Your task to perform on an android device: visit the assistant section in the google photos Image 0: 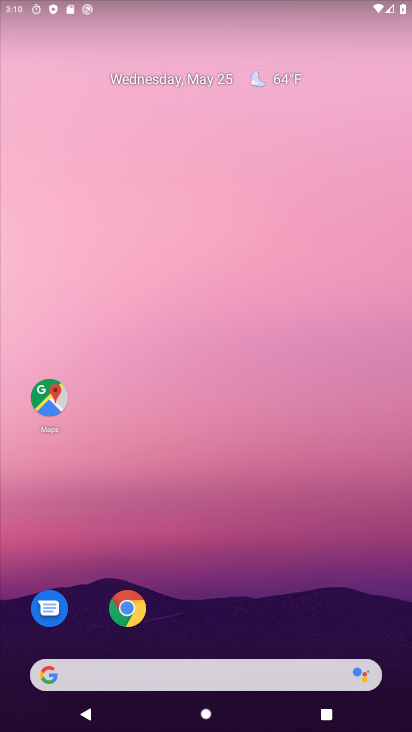
Step 0: drag from (249, 571) to (260, 169)
Your task to perform on an android device: visit the assistant section in the google photos Image 1: 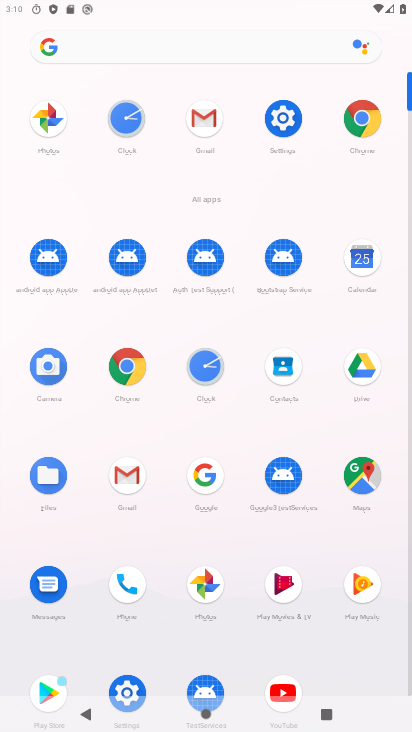
Step 1: click (53, 128)
Your task to perform on an android device: visit the assistant section in the google photos Image 2: 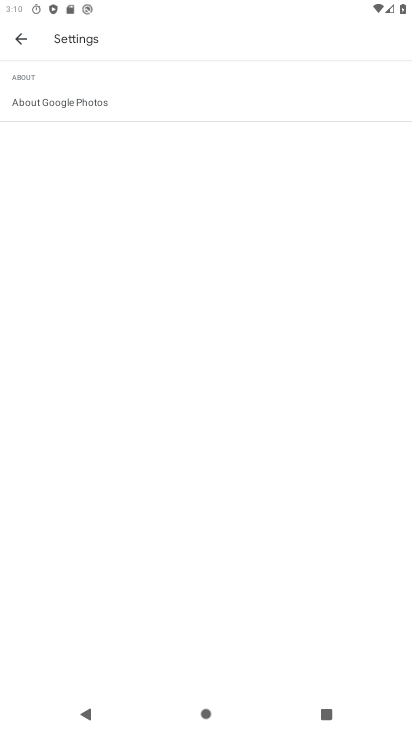
Step 2: click (23, 31)
Your task to perform on an android device: visit the assistant section in the google photos Image 3: 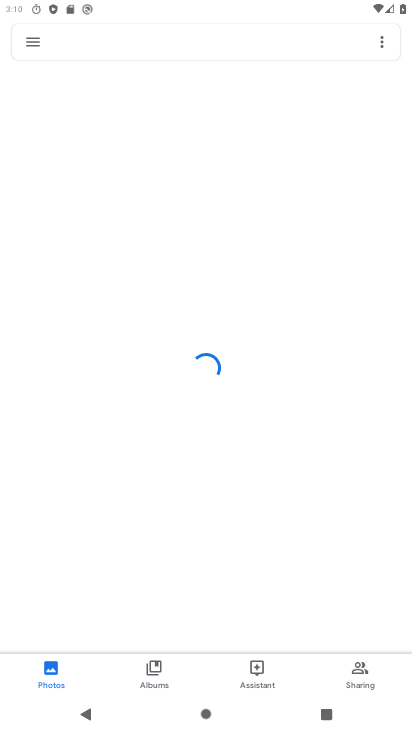
Step 3: click (242, 671)
Your task to perform on an android device: visit the assistant section in the google photos Image 4: 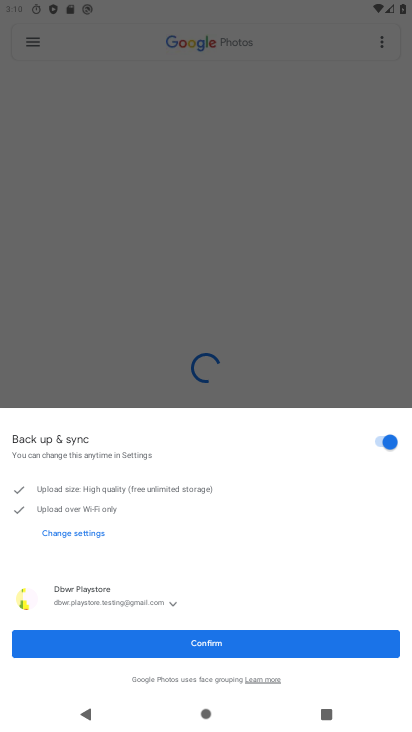
Step 4: click (245, 651)
Your task to perform on an android device: visit the assistant section in the google photos Image 5: 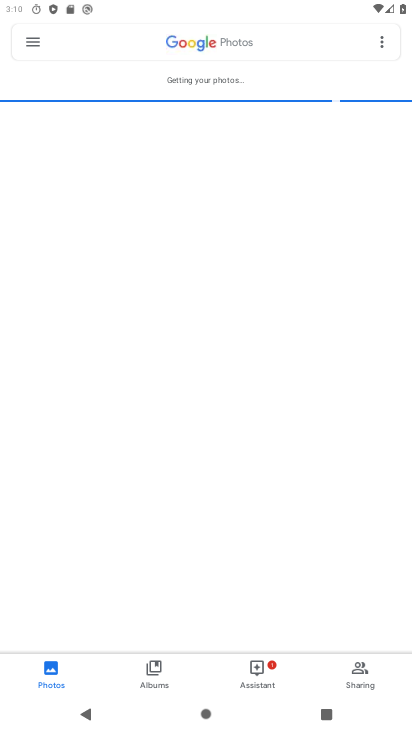
Step 5: click (254, 671)
Your task to perform on an android device: visit the assistant section in the google photos Image 6: 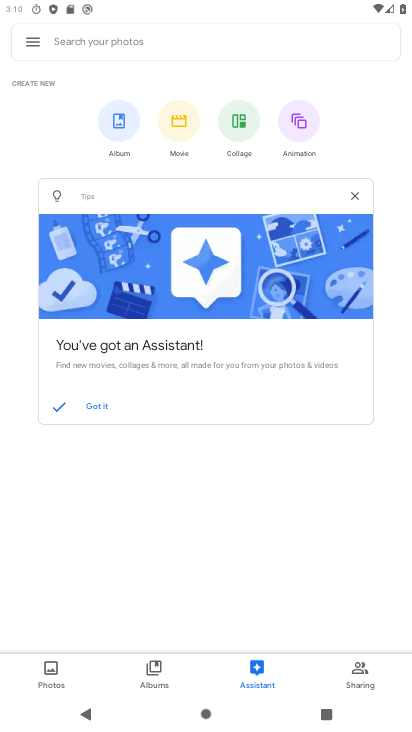
Step 6: task complete